Your task to perform on an android device: Empty the shopping cart on walmart.com. Search for duracell triple a on walmart.com, select the first entry, add it to the cart, then select checkout. Image 0: 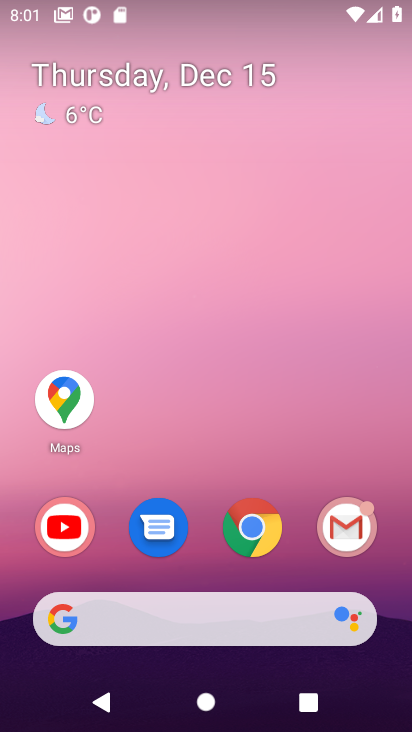
Step 0: click (237, 530)
Your task to perform on an android device: Empty the shopping cart on walmart.com. Search for duracell triple a on walmart.com, select the first entry, add it to the cart, then select checkout. Image 1: 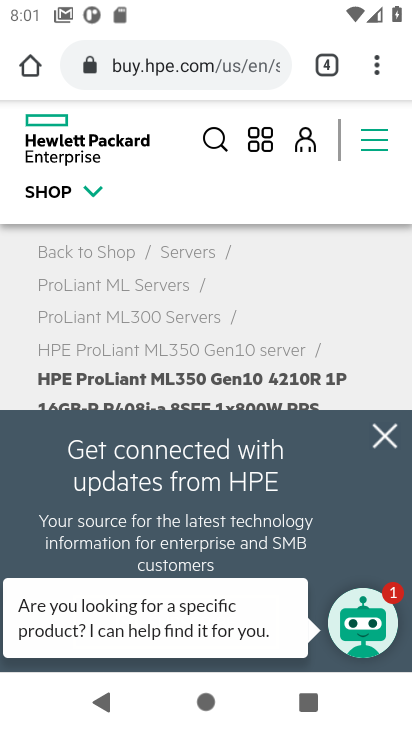
Step 1: click (224, 60)
Your task to perform on an android device: Empty the shopping cart on walmart.com. Search for duracell triple a on walmart.com, select the first entry, add it to the cart, then select checkout. Image 2: 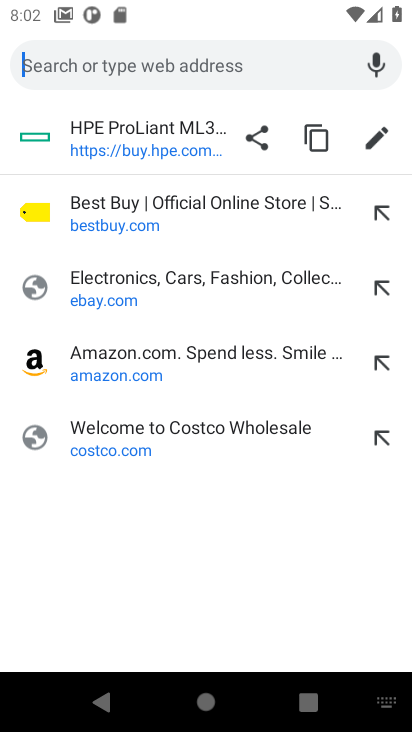
Step 2: type "walmart"
Your task to perform on an android device: Empty the shopping cart on walmart.com. Search for duracell triple a on walmart.com, select the first entry, add it to the cart, then select checkout. Image 3: 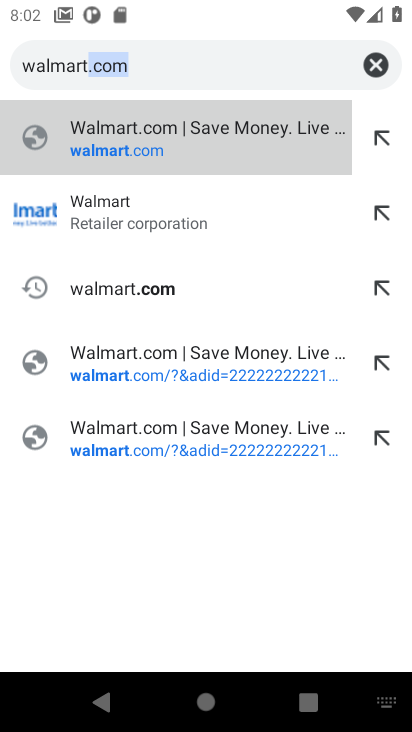
Step 3: click (177, 154)
Your task to perform on an android device: Empty the shopping cart on walmart.com. Search for duracell triple a on walmart.com, select the first entry, add it to the cart, then select checkout. Image 4: 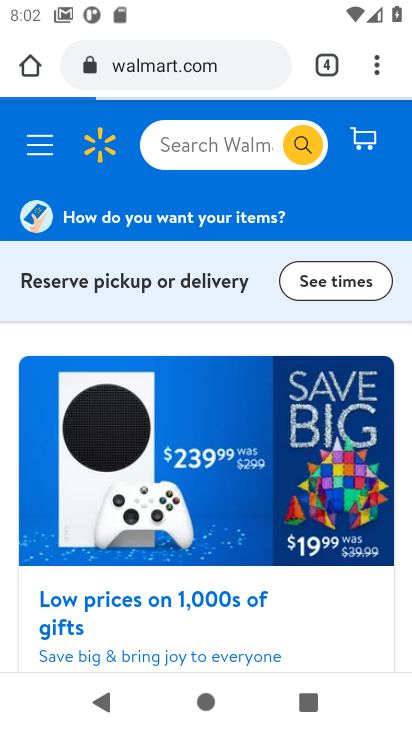
Step 4: click (207, 143)
Your task to perform on an android device: Empty the shopping cart on walmart.com. Search for duracell triple a on walmart.com, select the first entry, add it to the cart, then select checkout. Image 5: 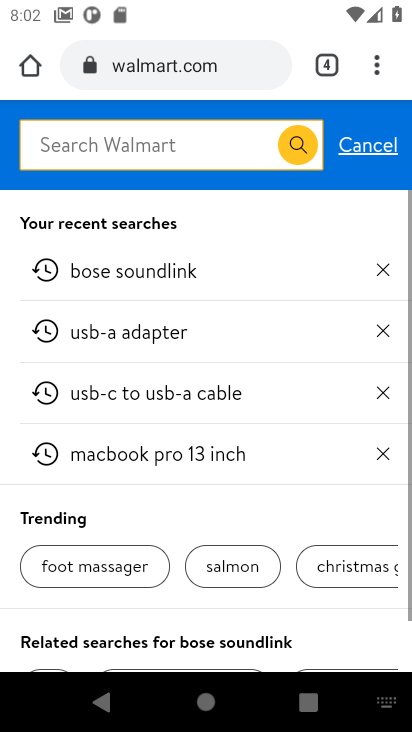
Step 5: type "duracell"
Your task to perform on an android device: Empty the shopping cart on walmart.com. Search for duracell triple a on walmart.com, select the first entry, add it to the cart, then select checkout. Image 6: 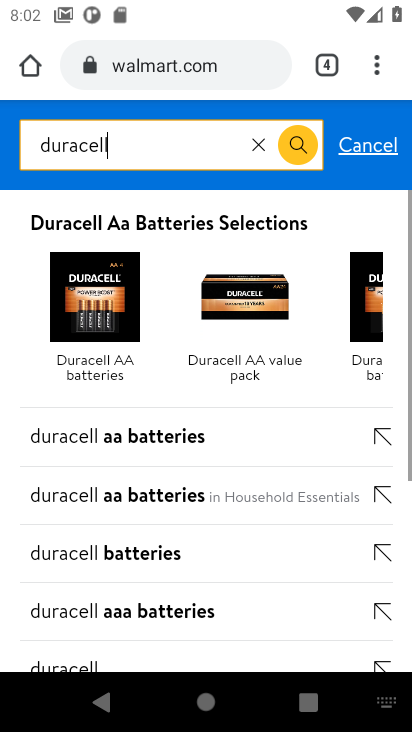
Step 6: click (87, 305)
Your task to perform on an android device: Empty the shopping cart on walmart.com. Search for duracell triple a on walmart.com, select the first entry, add it to the cart, then select checkout. Image 7: 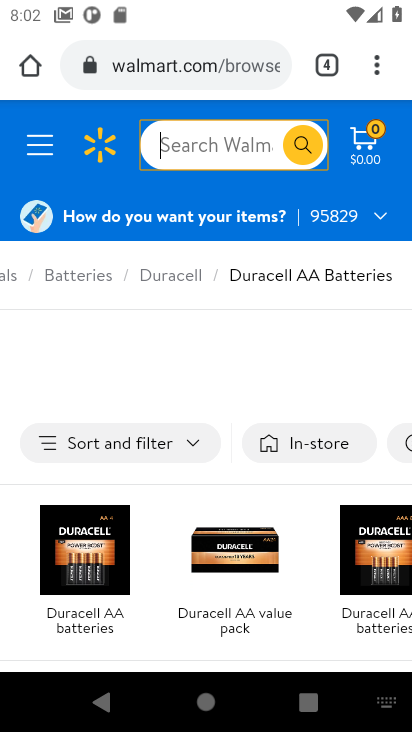
Step 7: click (105, 564)
Your task to perform on an android device: Empty the shopping cart on walmart.com. Search for duracell triple a on walmart.com, select the first entry, add it to the cart, then select checkout. Image 8: 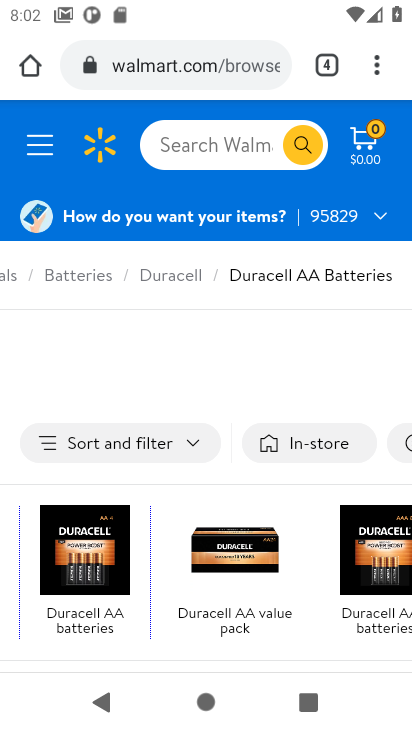
Step 8: task complete